Your task to perform on an android device: Open my contact list Image 0: 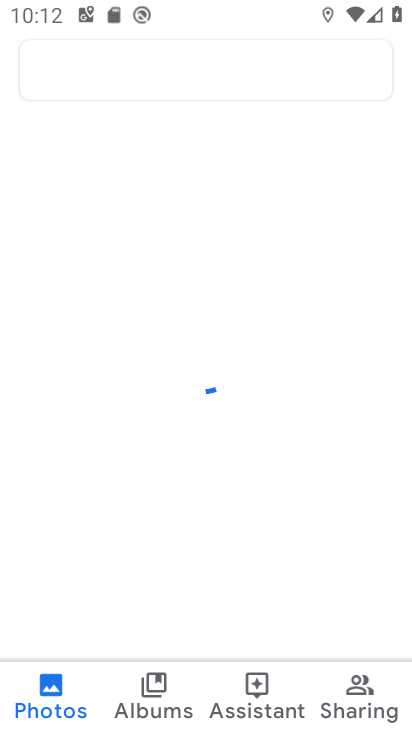
Step 0: press home button
Your task to perform on an android device: Open my contact list Image 1: 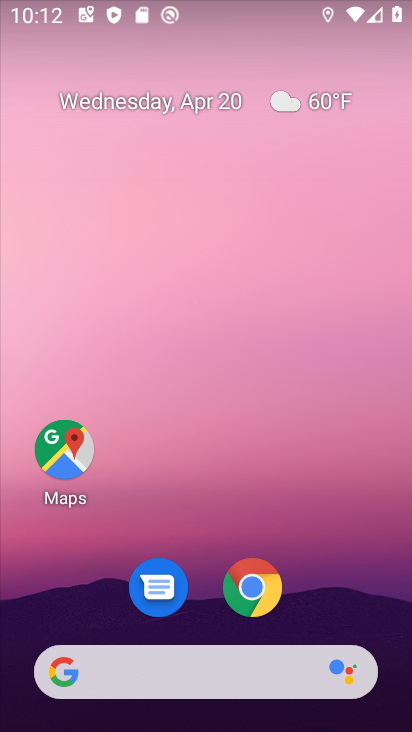
Step 1: drag from (215, 491) to (226, 42)
Your task to perform on an android device: Open my contact list Image 2: 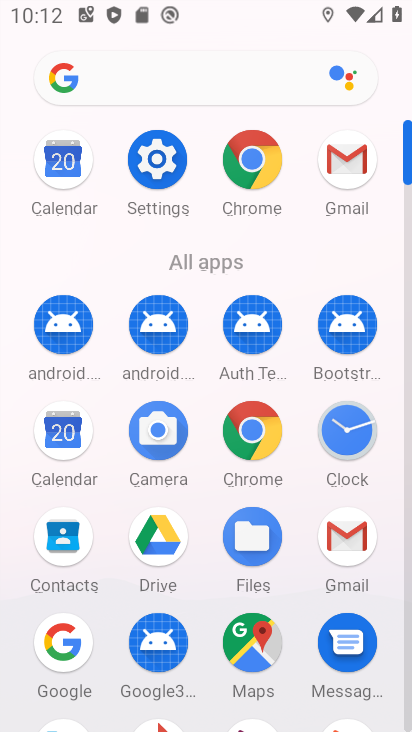
Step 2: click (53, 545)
Your task to perform on an android device: Open my contact list Image 3: 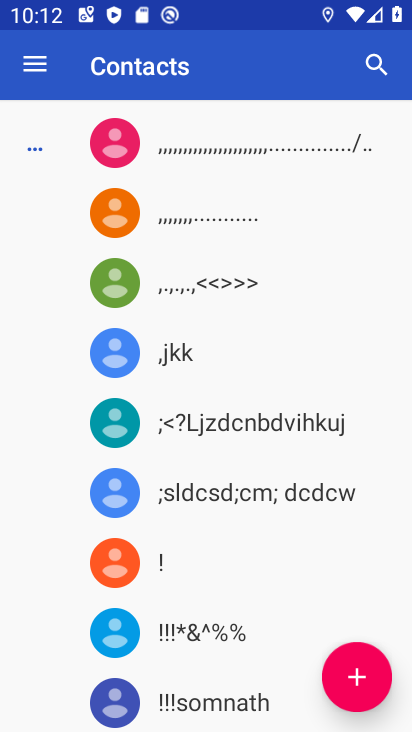
Step 3: task complete